Your task to perform on an android device: Open calendar and show me the third week of next month Image 0: 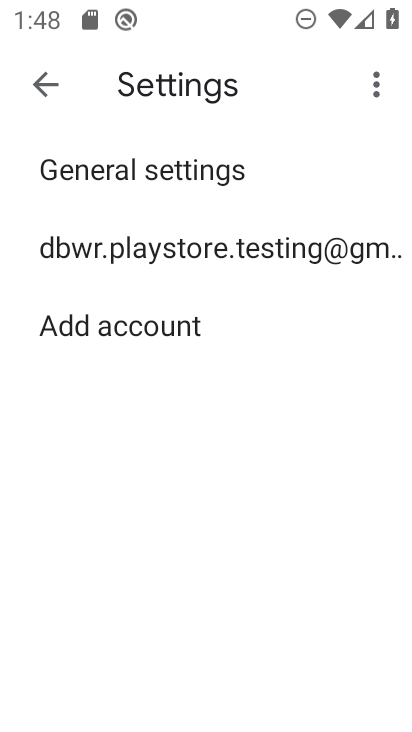
Step 0: press home button
Your task to perform on an android device: Open calendar and show me the third week of next month Image 1: 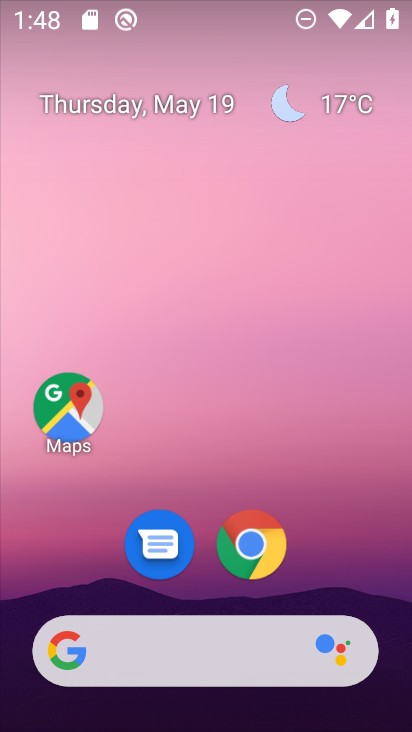
Step 1: drag from (213, 707) to (233, 196)
Your task to perform on an android device: Open calendar and show me the third week of next month Image 2: 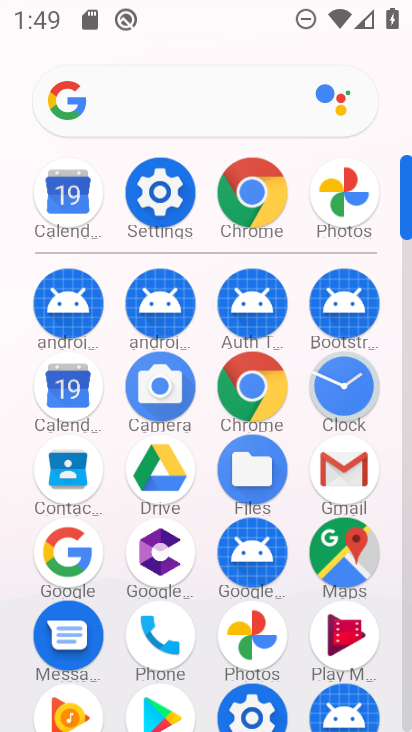
Step 2: click (62, 396)
Your task to perform on an android device: Open calendar and show me the third week of next month Image 3: 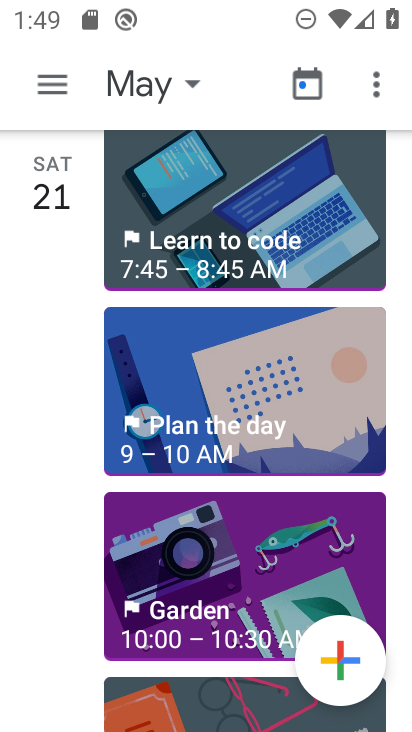
Step 3: click (161, 78)
Your task to perform on an android device: Open calendar and show me the third week of next month Image 4: 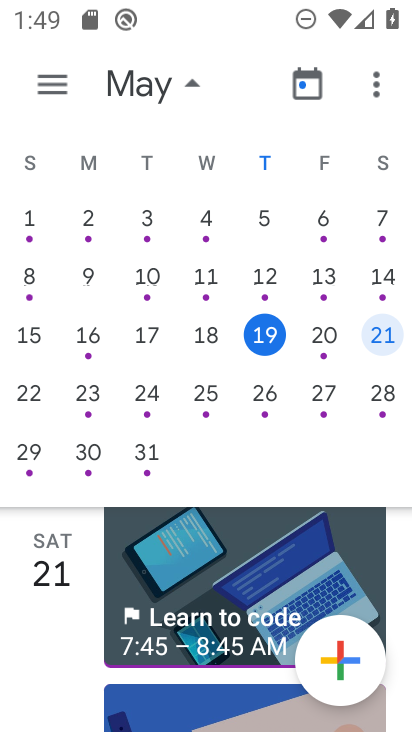
Step 4: drag from (354, 305) to (11, 255)
Your task to perform on an android device: Open calendar and show me the third week of next month Image 5: 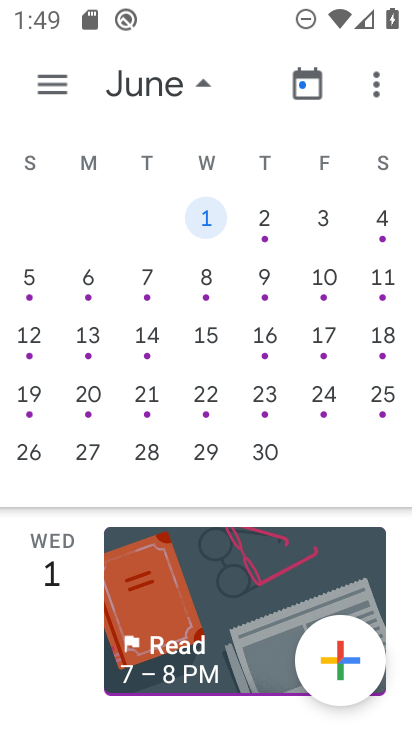
Step 5: click (85, 383)
Your task to perform on an android device: Open calendar and show me the third week of next month Image 6: 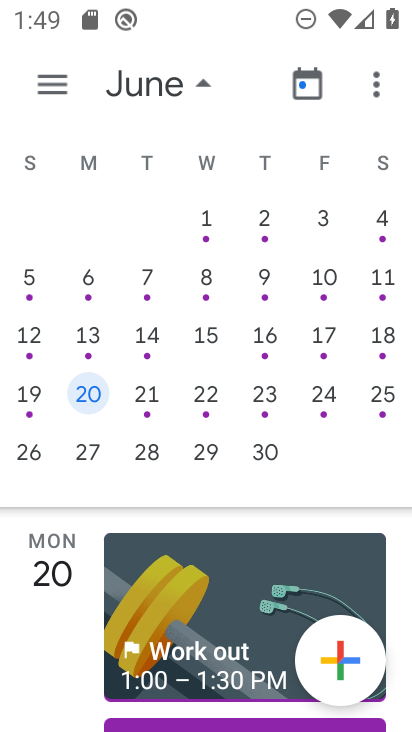
Step 6: click (53, 84)
Your task to perform on an android device: Open calendar and show me the third week of next month Image 7: 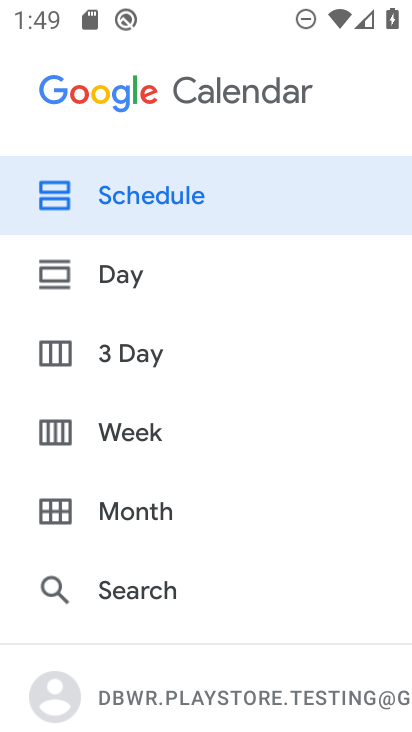
Step 7: click (138, 426)
Your task to perform on an android device: Open calendar and show me the third week of next month Image 8: 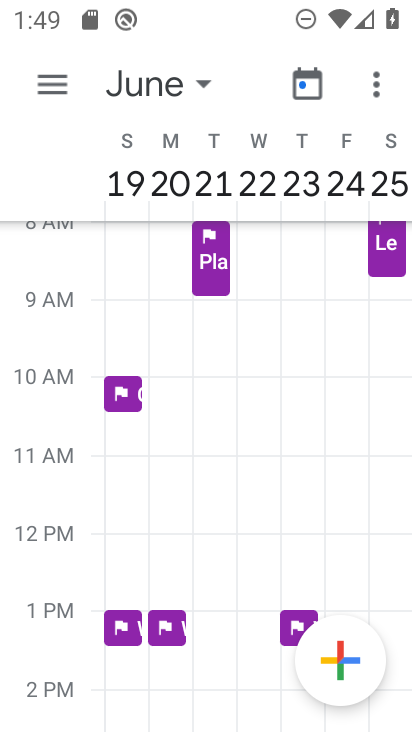
Step 8: task complete